Your task to perform on an android device: move a message to another label in the gmail app Image 0: 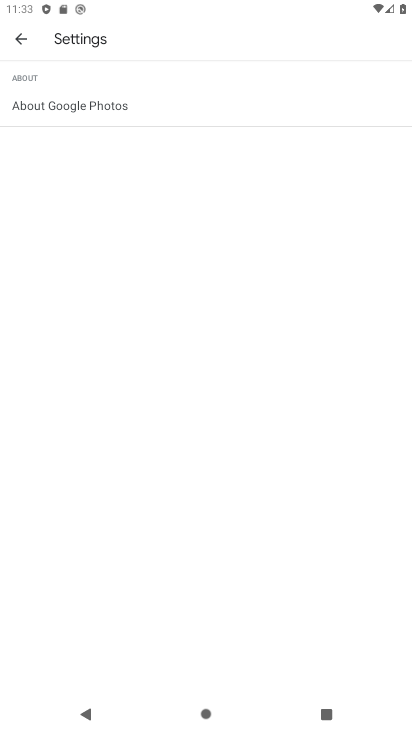
Step 0: press home button
Your task to perform on an android device: move a message to another label in the gmail app Image 1: 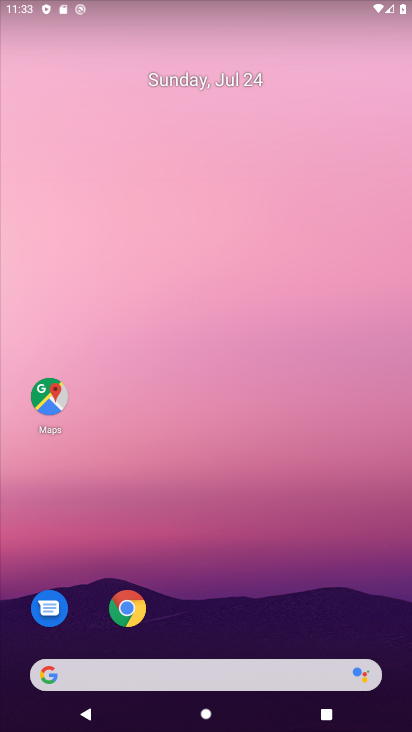
Step 1: click (245, 488)
Your task to perform on an android device: move a message to another label in the gmail app Image 2: 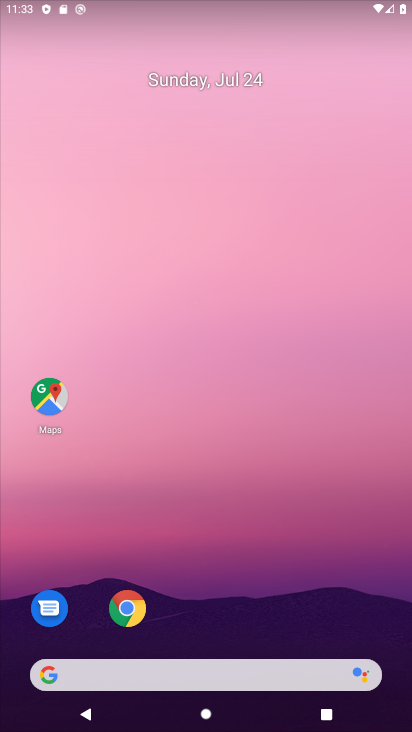
Step 2: click (385, 540)
Your task to perform on an android device: move a message to another label in the gmail app Image 3: 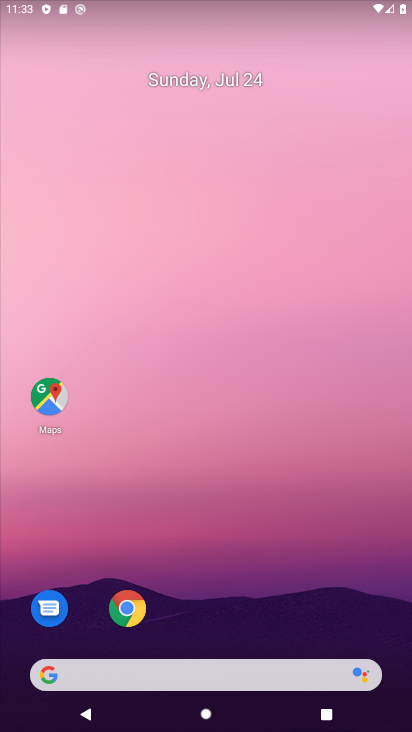
Step 3: drag from (103, 728) to (216, 84)
Your task to perform on an android device: move a message to another label in the gmail app Image 4: 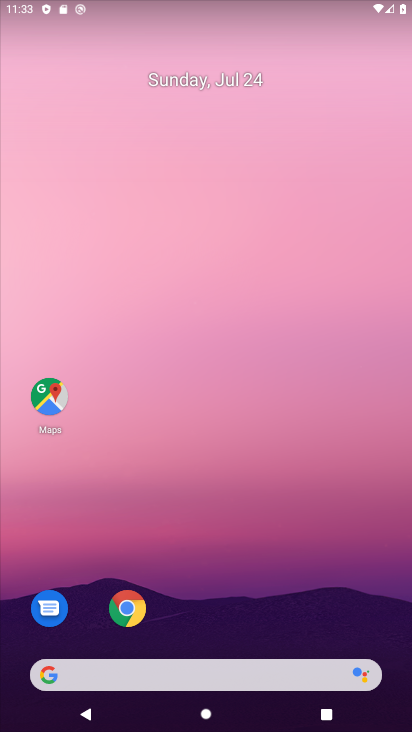
Step 4: drag from (8, 691) to (219, 3)
Your task to perform on an android device: move a message to another label in the gmail app Image 5: 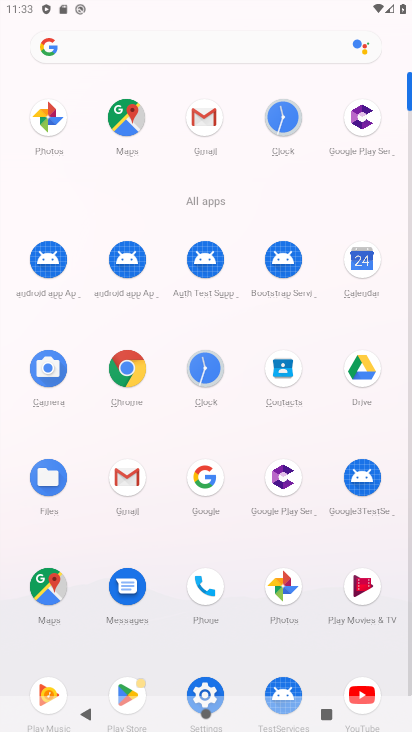
Step 5: click (195, 132)
Your task to perform on an android device: move a message to another label in the gmail app Image 6: 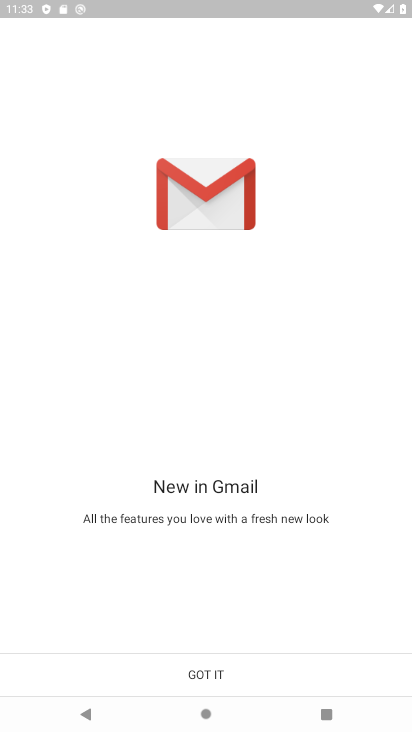
Step 6: click (213, 657)
Your task to perform on an android device: move a message to another label in the gmail app Image 7: 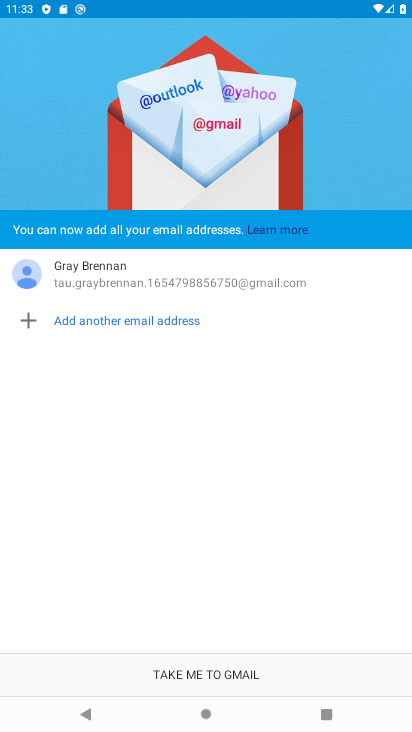
Step 7: click (186, 691)
Your task to perform on an android device: move a message to another label in the gmail app Image 8: 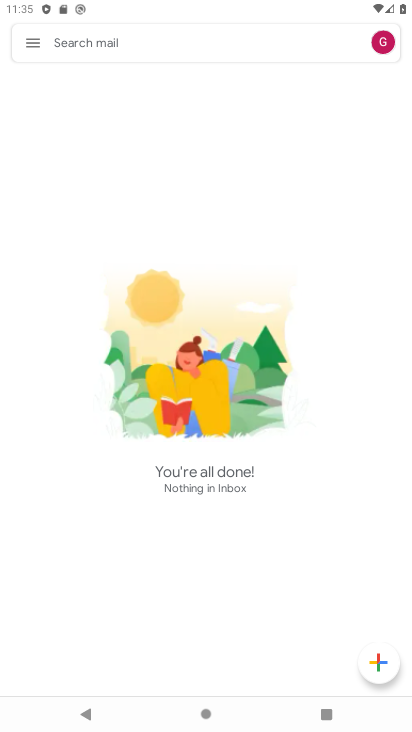
Step 8: task complete